Your task to perform on an android device: Open the web browser Image 0: 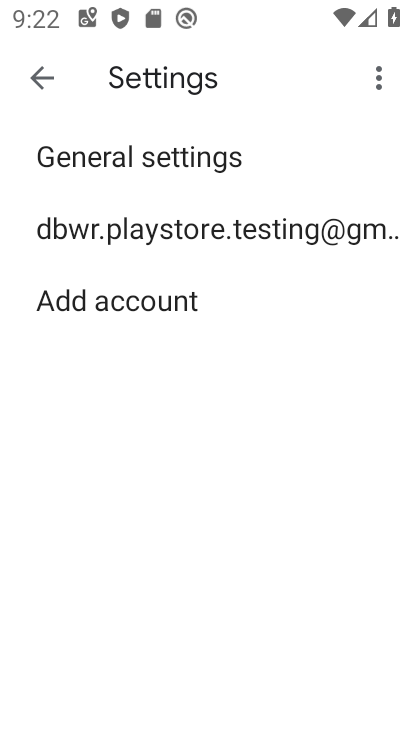
Step 0: press back button
Your task to perform on an android device: Open the web browser Image 1: 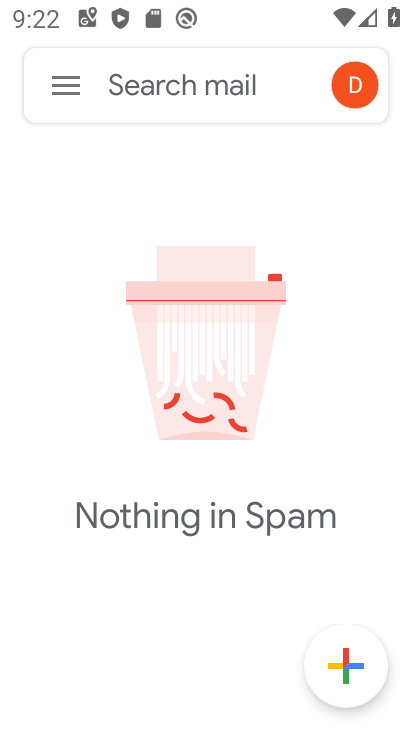
Step 1: press back button
Your task to perform on an android device: Open the web browser Image 2: 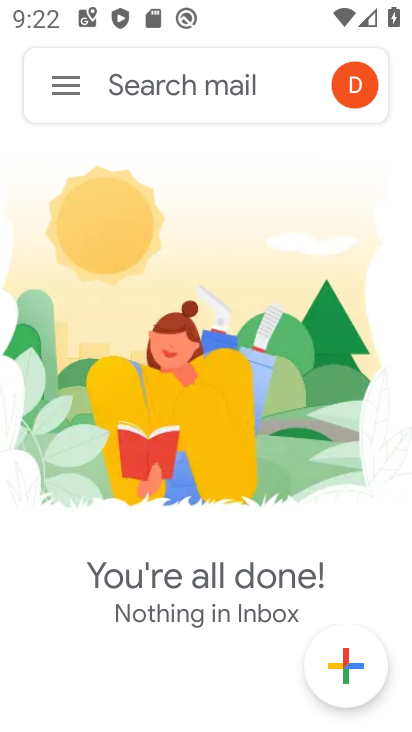
Step 2: press back button
Your task to perform on an android device: Open the web browser Image 3: 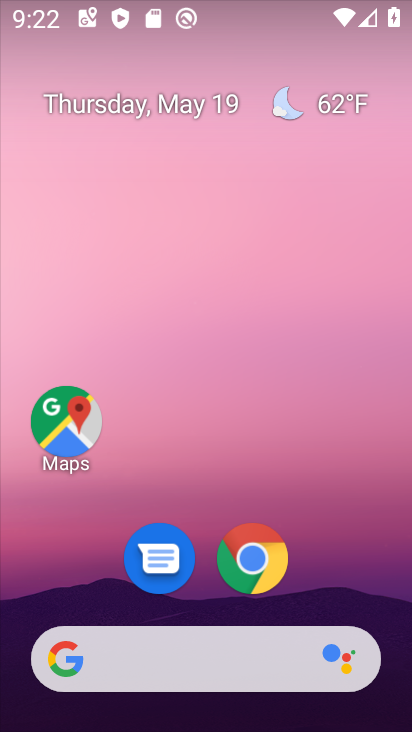
Step 3: click (252, 558)
Your task to perform on an android device: Open the web browser Image 4: 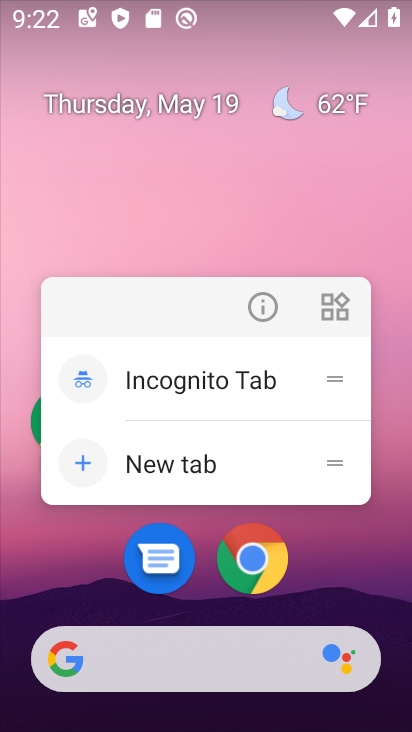
Step 4: click (252, 558)
Your task to perform on an android device: Open the web browser Image 5: 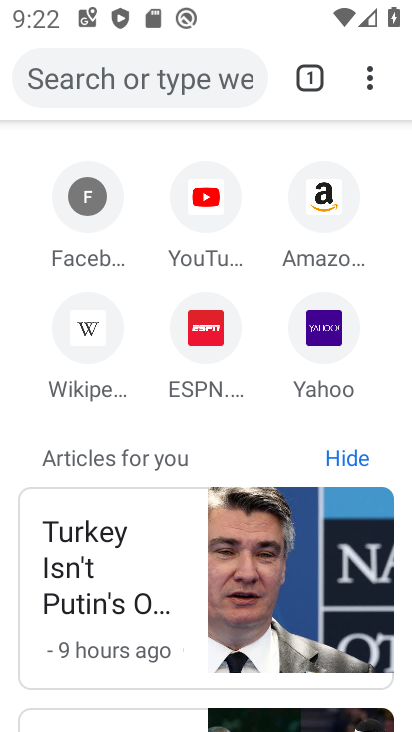
Step 5: task complete